Your task to perform on an android device: Empty the shopping cart on costco. Image 0: 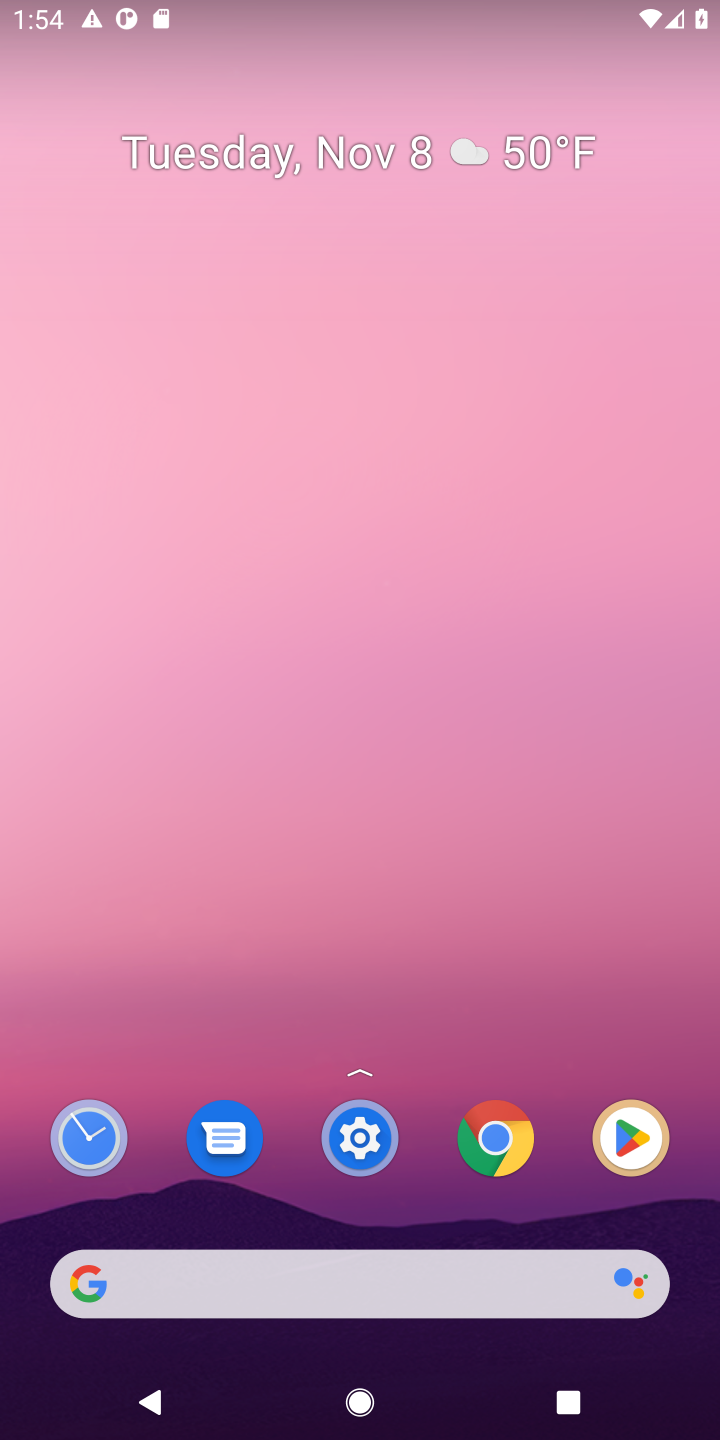
Step 0: click (437, 1272)
Your task to perform on an android device: Empty the shopping cart on costco. Image 1: 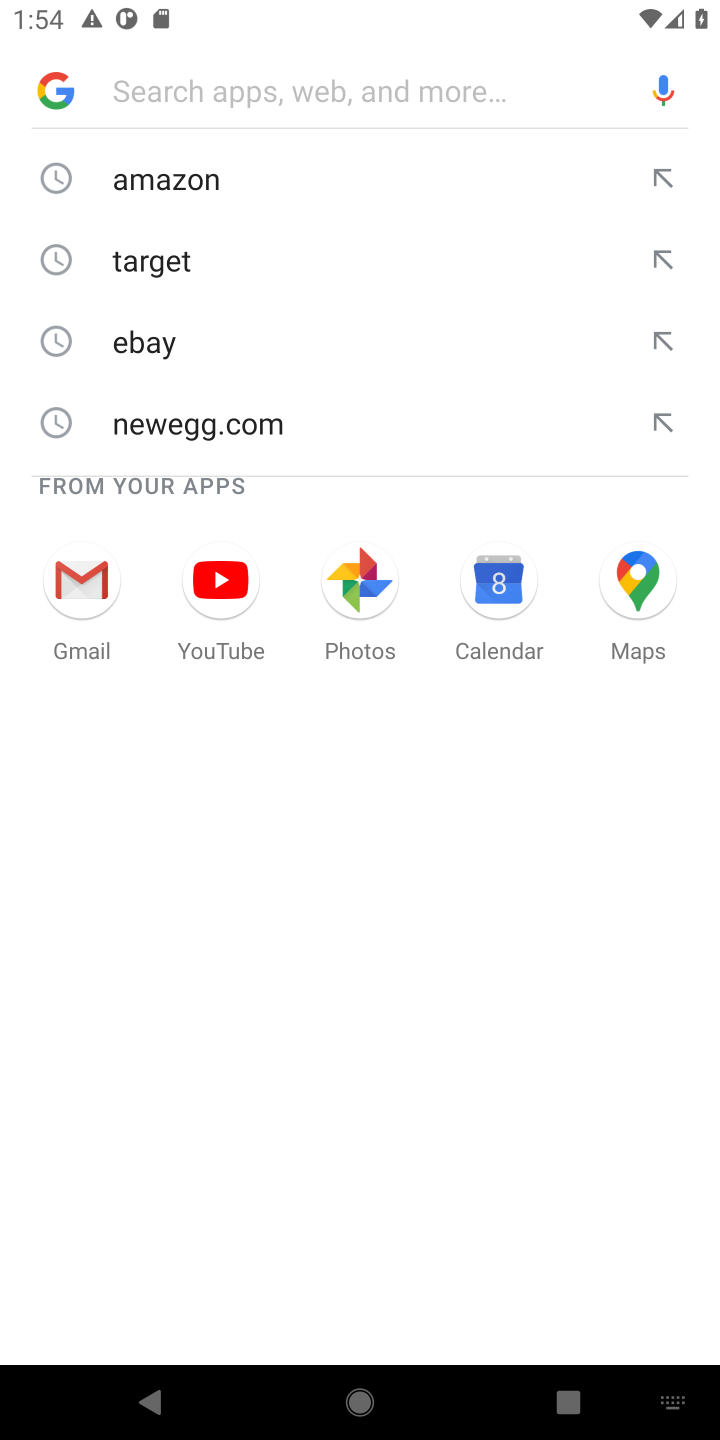
Step 1: type "costco"
Your task to perform on an android device: Empty the shopping cart on costco. Image 2: 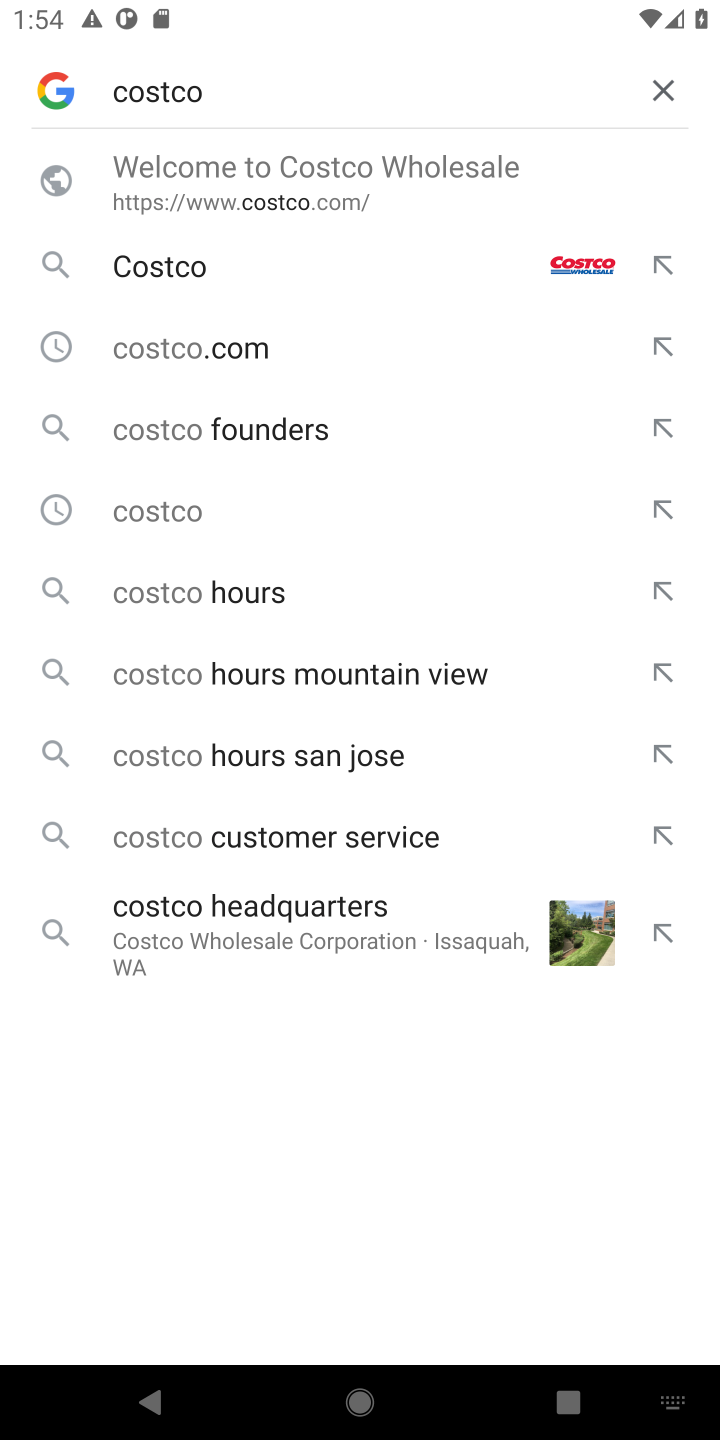
Step 2: click (192, 278)
Your task to perform on an android device: Empty the shopping cart on costco. Image 3: 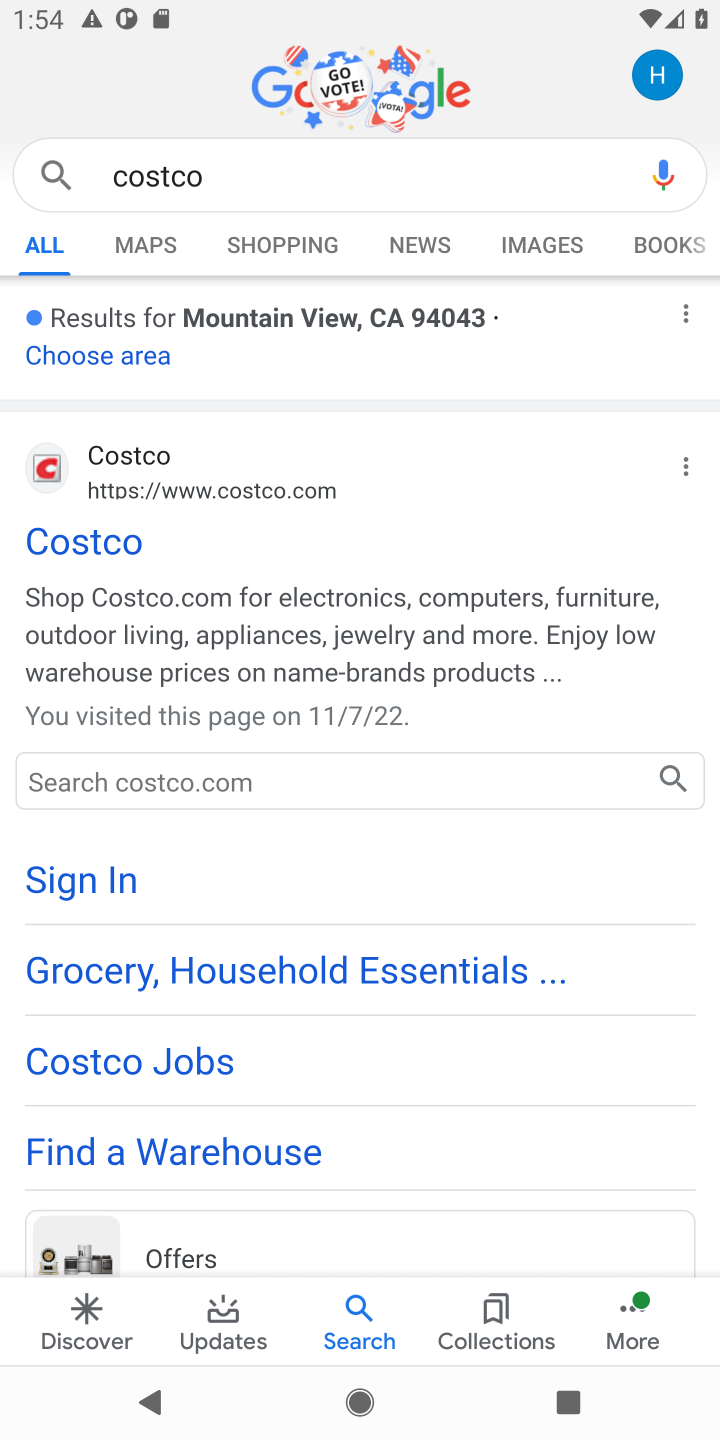
Step 3: click (81, 538)
Your task to perform on an android device: Empty the shopping cart on costco. Image 4: 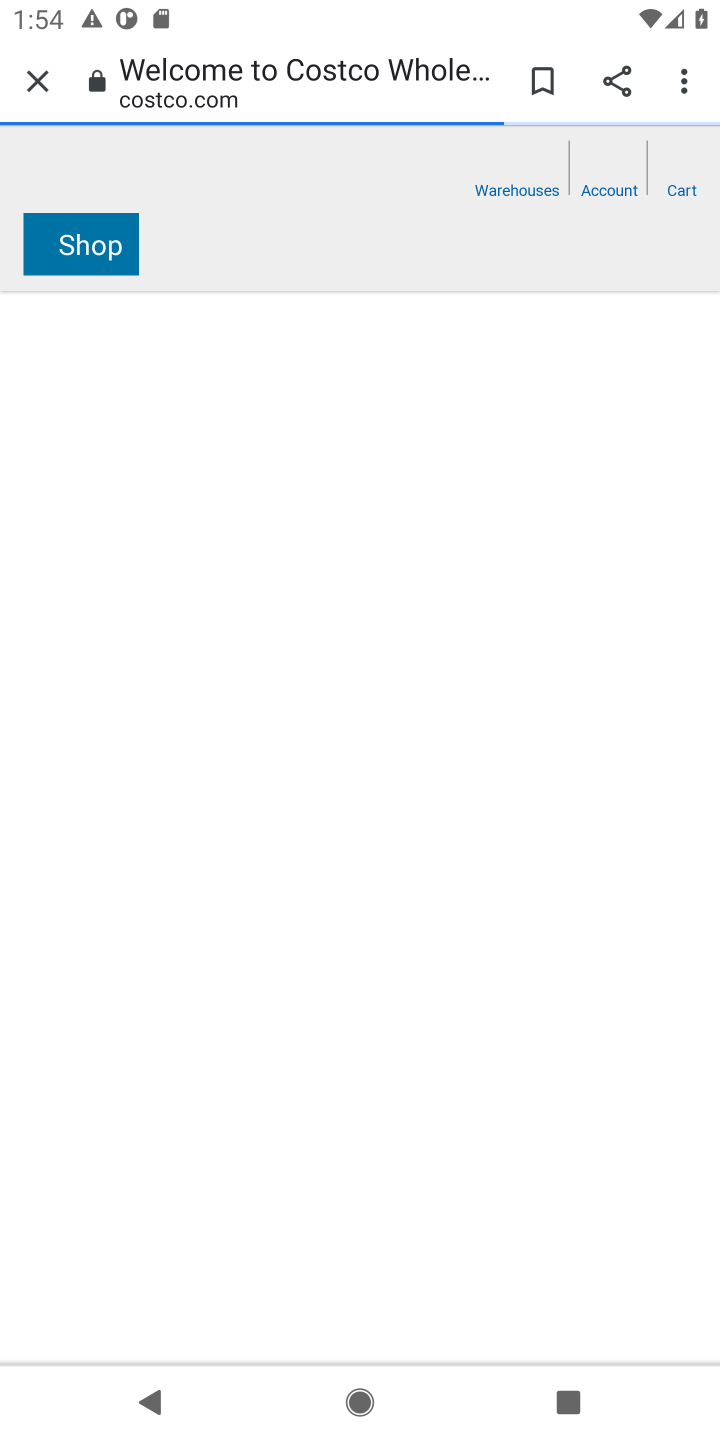
Step 4: task complete